Your task to perform on an android device: Go to CNN.com Image 0: 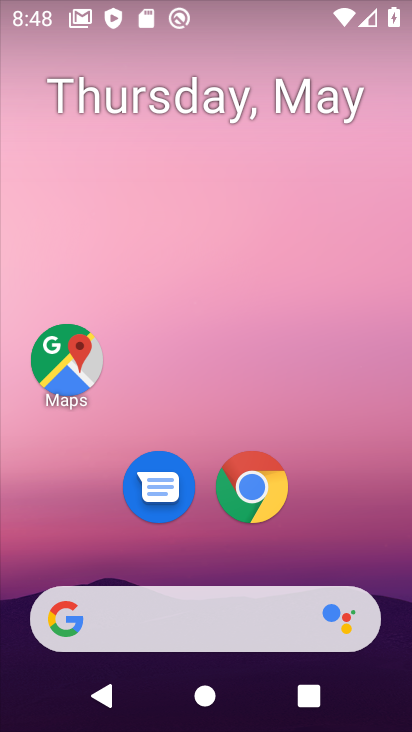
Step 0: drag from (232, 558) to (154, 37)
Your task to perform on an android device: Go to CNN.com Image 1: 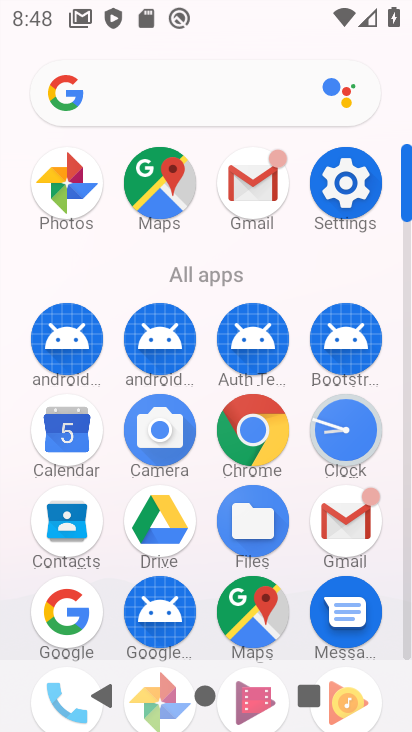
Step 1: click (247, 435)
Your task to perform on an android device: Go to CNN.com Image 2: 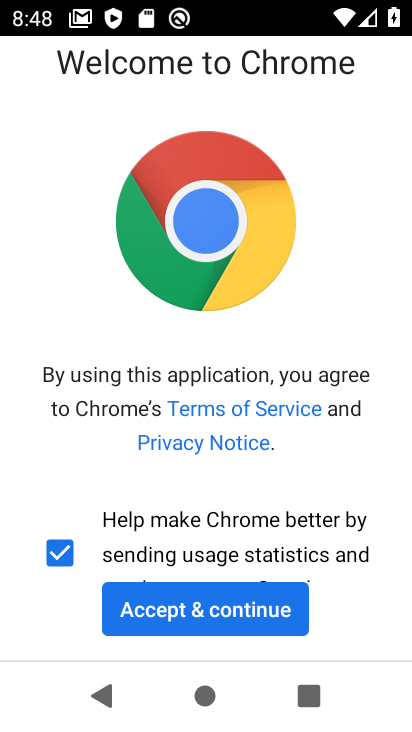
Step 2: click (206, 630)
Your task to perform on an android device: Go to CNN.com Image 3: 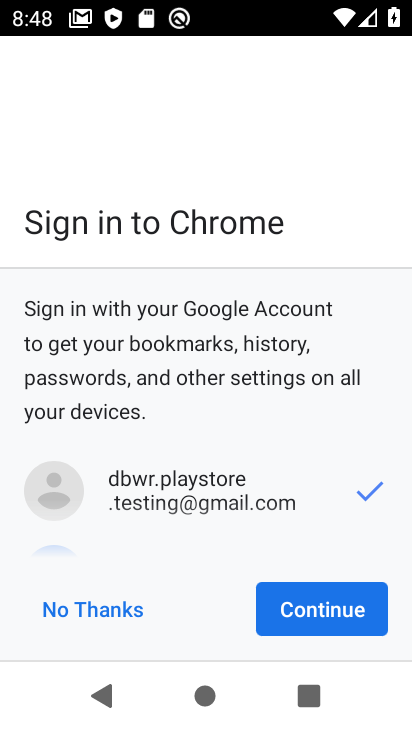
Step 3: click (295, 626)
Your task to perform on an android device: Go to CNN.com Image 4: 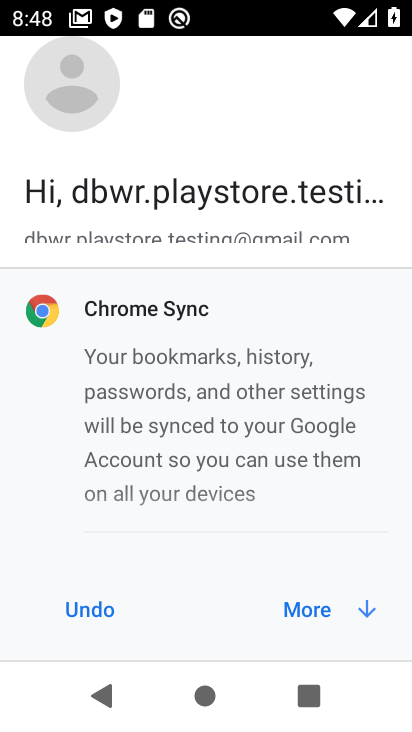
Step 4: click (331, 614)
Your task to perform on an android device: Go to CNN.com Image 5: 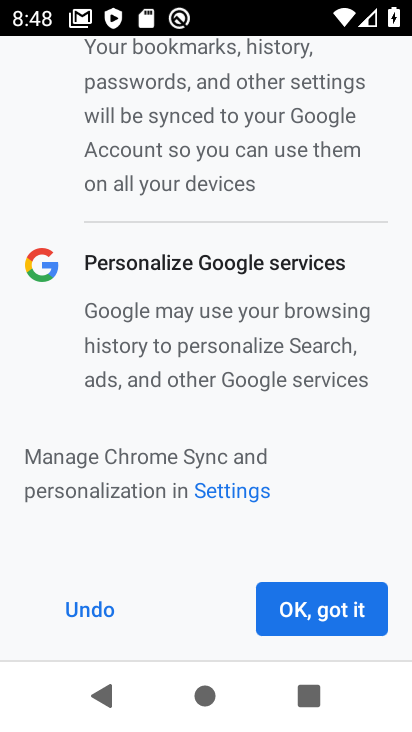
Step 5: click (331, 614)
Your task to perform on an android device: Go to CNN.com Image 6: 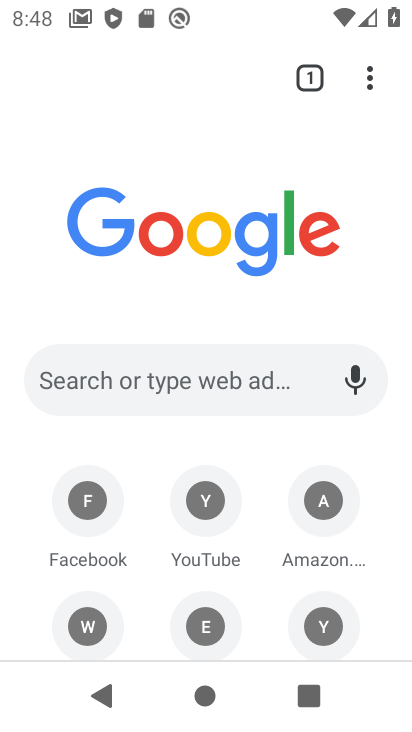
Step 6: click (246, 375)
Your task to perform on an android device: Go to CNN.com Image 7: 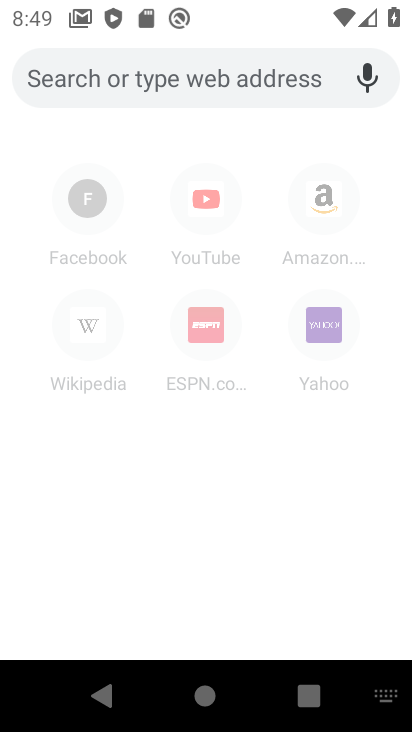
Step 7: type "cnn.com"
Your task to perform on an android device: Go to CNN.com Image 8: 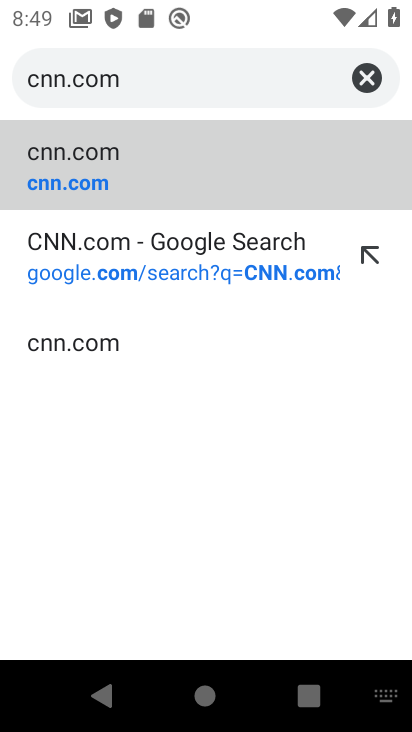
Step 8: click (131, 265)
Your task to perform on an android device: Go to CNN.com Image 9: 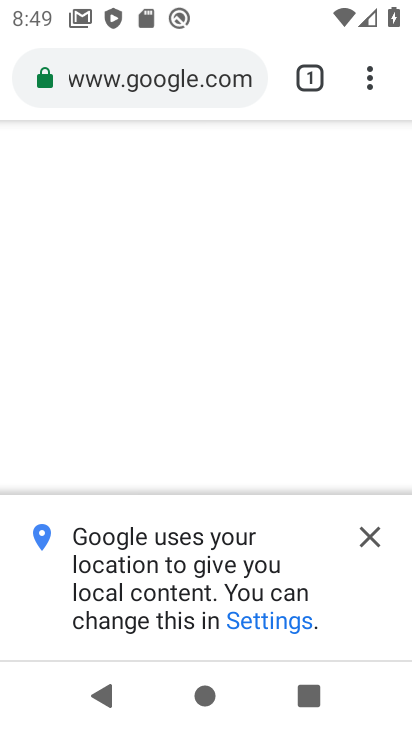
Step 9: click (374, 541)
Your task to perform on an android device: Go to CNN.com Image 10: 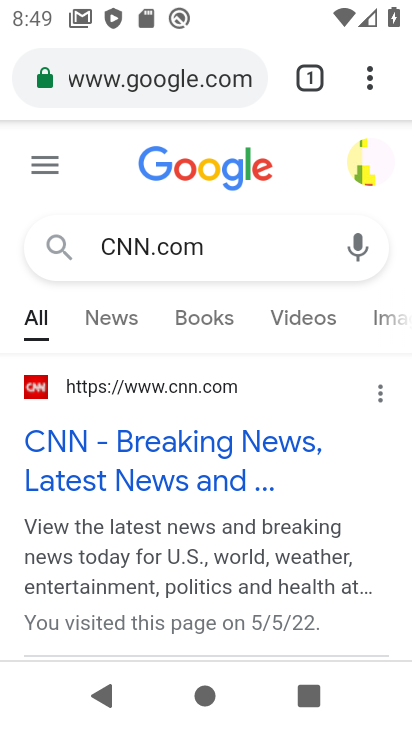
Step 10: click (242, 490)
Your task to perform on an android device: Go to CNN.com Image 11: 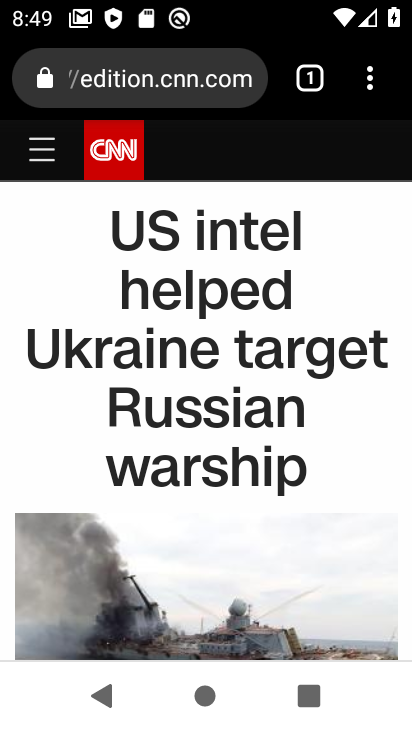
Step 11: task complete